Your task to perform on an android device: toggle sleep mode Image 0: 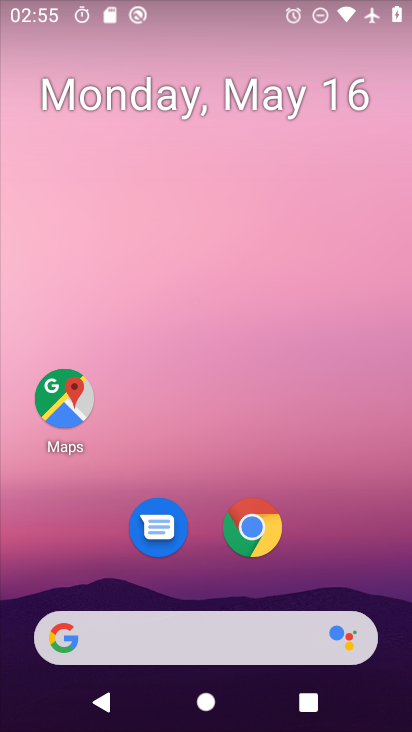
Step 0: drag from (140, 640) to (355, 82)
Your task to perform on an android device: toggle sleep mode Image 1: 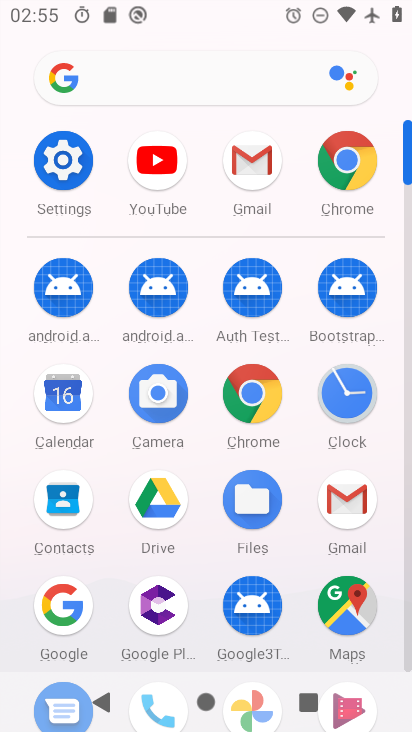
Step 1: click (66, 159)
Your task to perform on an android device: toggle sleep mode Image 2: 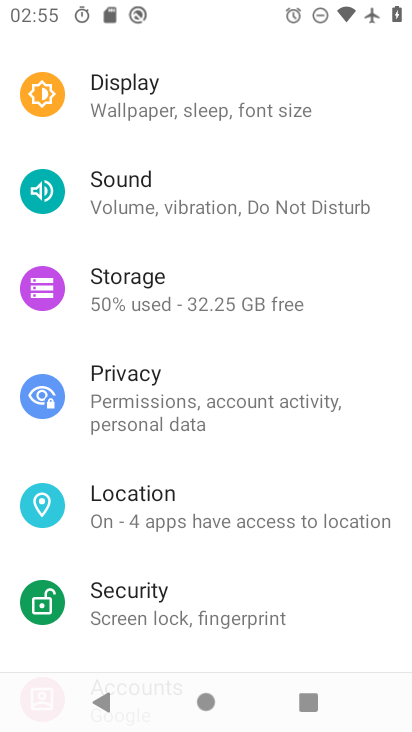
Step 2: click (205, 102)
Your task to perform on an android device: toggle sleep mode Image 3: 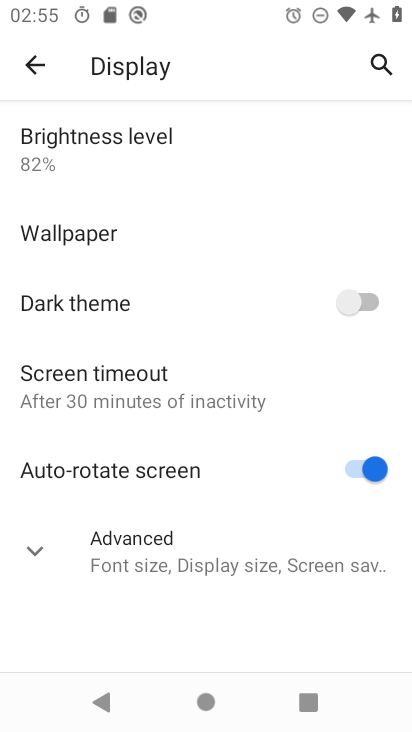
Step 3: task complete